Your task to perform on an android device: Go to Google Image 0: 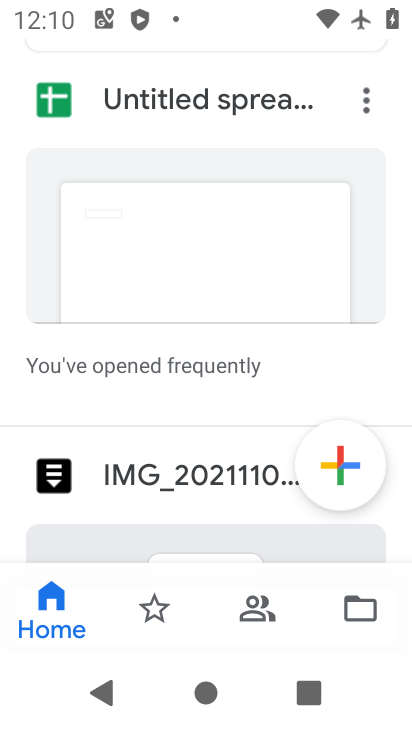
Step 0: drag from (226, 480) to (310, 164)
Your task to perform on an android device: Go to Google Image 1: 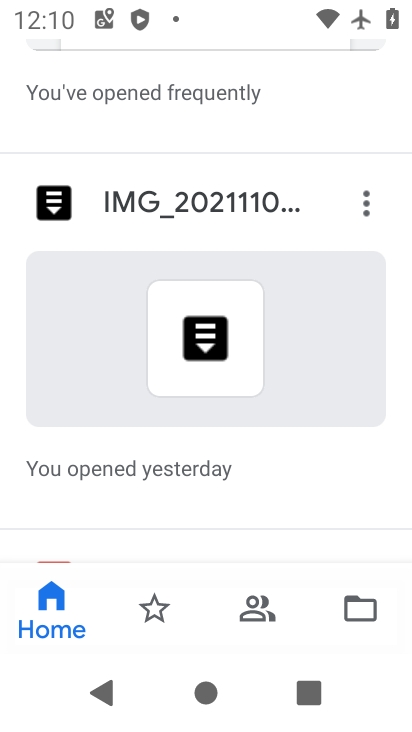
Step 1: drag from (219, 473) to (310, 137)
Your task to perform on an android device: Go to Google Image 2: 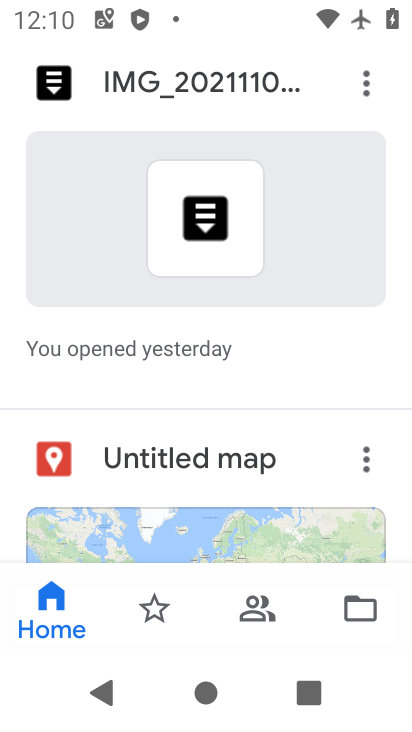
Step 2: drag from (240, 481) to (354, 731)
Your task to perform on an android device: Go to Google Image 3: 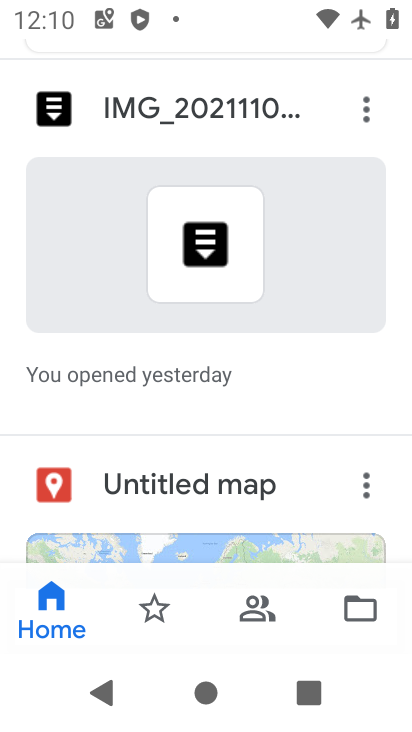
Step 3: press home button
Your task to perform on an android device: Go to Google Image 4: 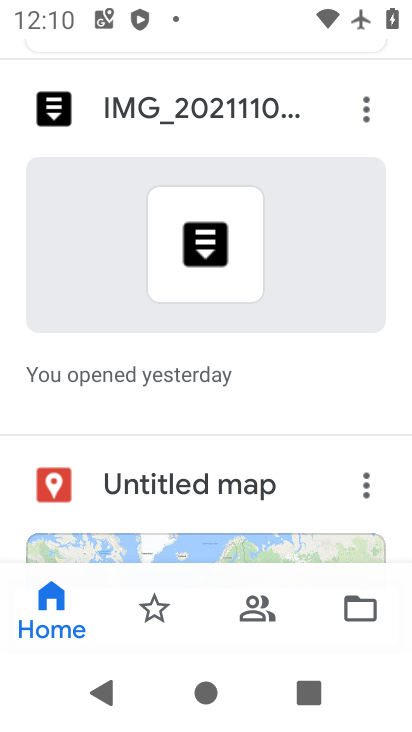
Step 4: press home button
Your task to perform on an android device: Go to Google Image 5: 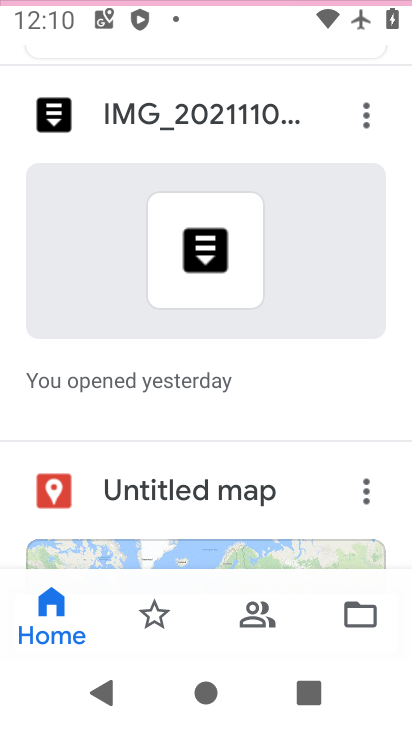
Step 5: click (392, 325)
Your task to perform on an android device: Go to Google Image 6: 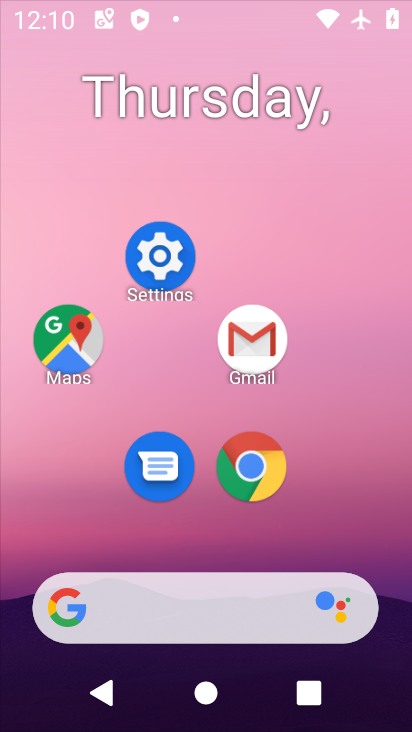
Step 6: drag from (189, 516) to (390, 281)
Your task to perform on an android device: Go to Google Image 7: 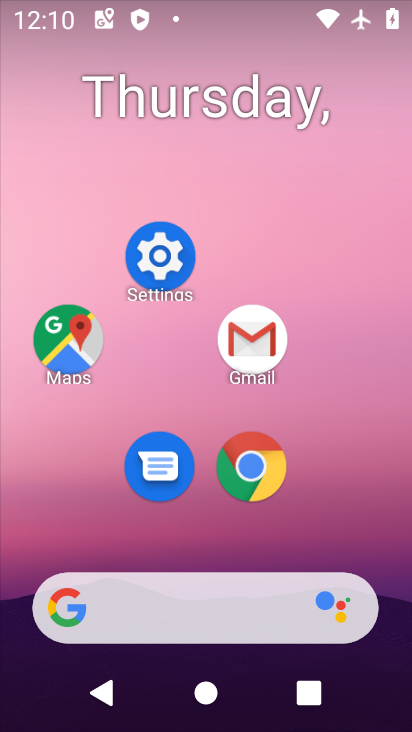
Step 7: drag from (215, 535) to (290, 47)
Your task to perform on an android device: Go to Google Image 8: 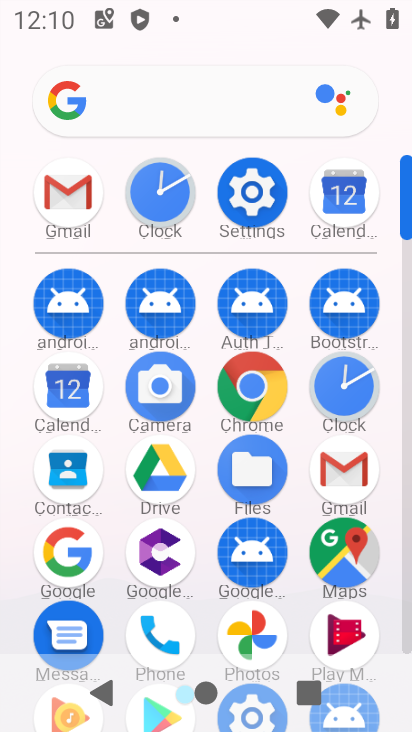
Step 8: click (65, 548)
Your task to perform on an android device: Go to Google Image 9: 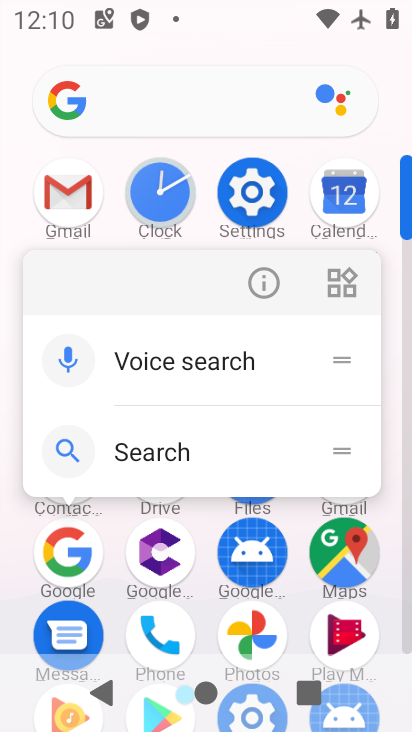
Step 9: click (262, 277)
Your task to perform on an android device: Go to Google Image 10: 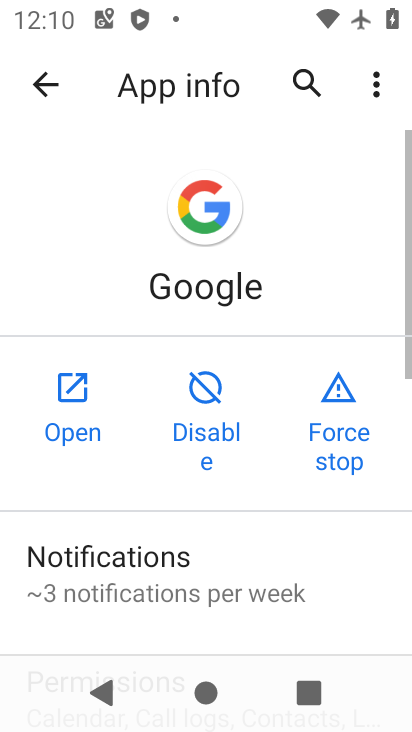
Step 10: click (51, 408)
Your task to perform on an android device: Go to Google Image 11: 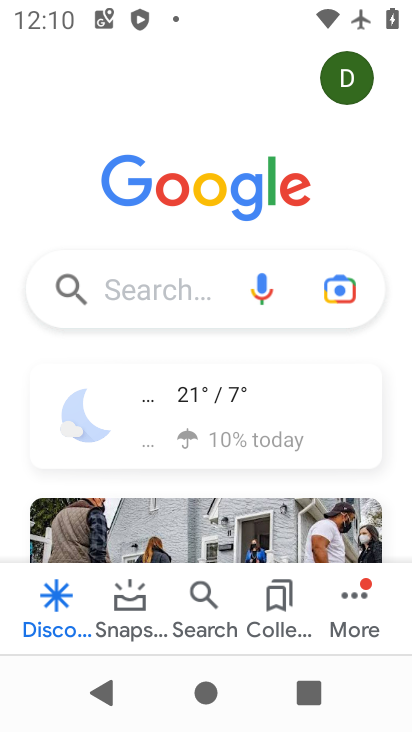
Step 11: task complete